Your task to perform on an android device: Is it going to rain today? Image 0: 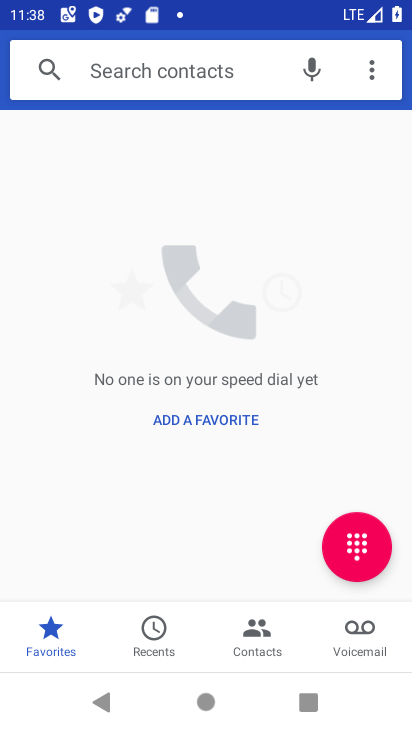
Step 0: press home button
Your task to perform on an android device: Is it going to rain today? Image 1: 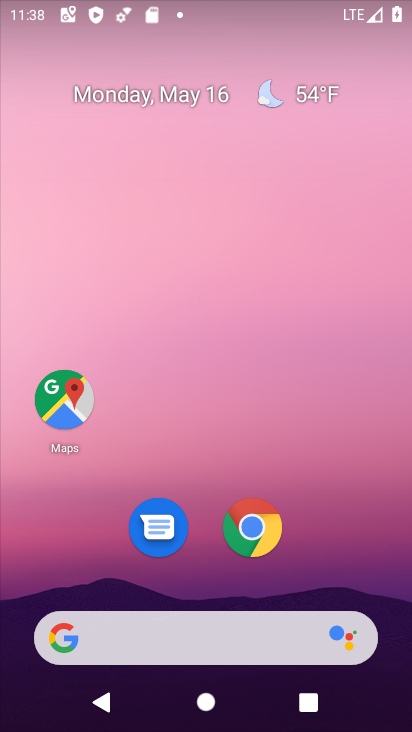
Step 1: drag from (274, 663) to (172, 226)
Your task to perform on an android device: Is it going to rain today? Image 2: 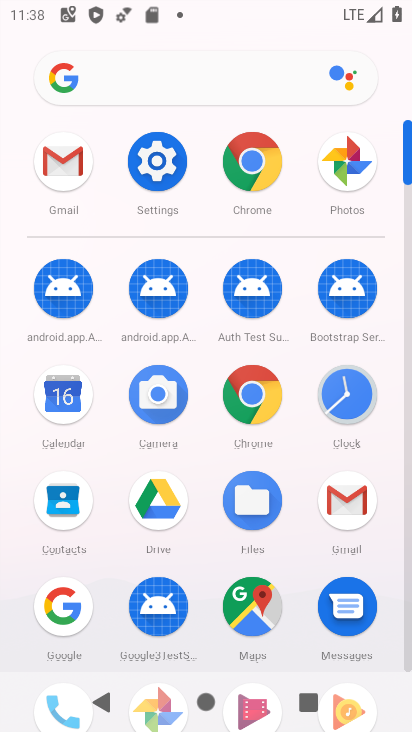
Step 2: click (130, 81)
Your task to perform on an android device: Is it going to rain today? Image 3: 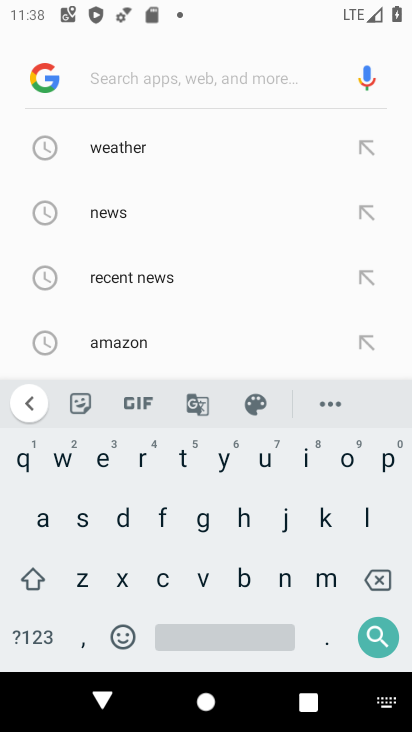
Step 3: click (104, 147)
Your task to perform on an android device: Is it going to rain today? Image 4: 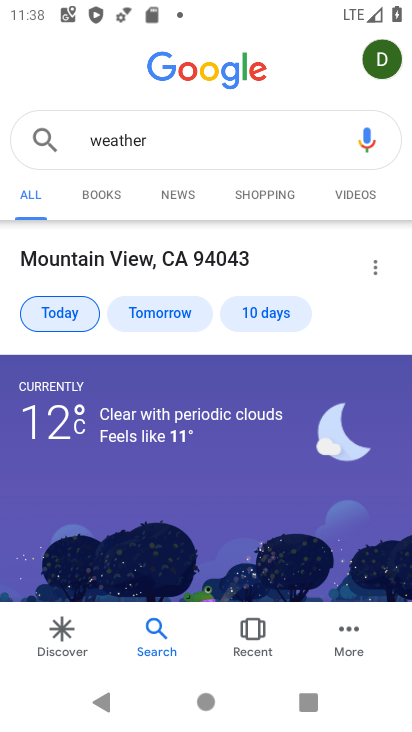
Step 4: task complete